Your task to perform on an android device: add a label to a message in the gmail app Image 0: 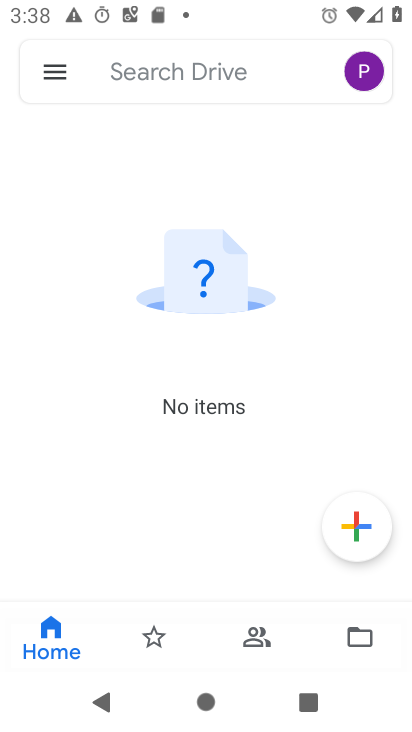
Step 0: press home button
Your task to perform on an android device: add a label to a message in the gmail app Image 1: 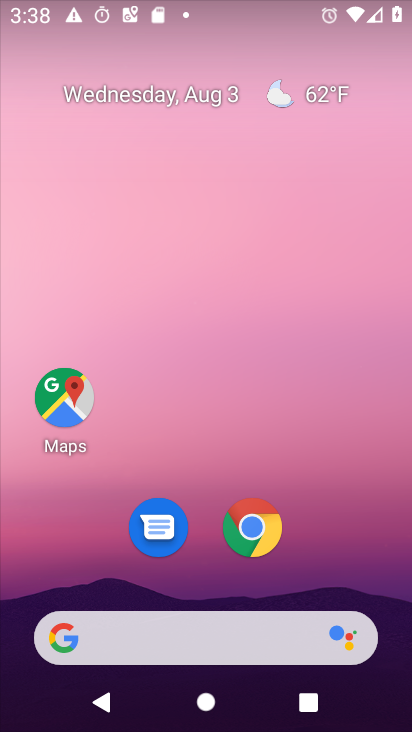
Step 1: drag from (329, 553) to (356, 155)
Your task to perform on an android device: add a label to a message in the gmail app Image 2: 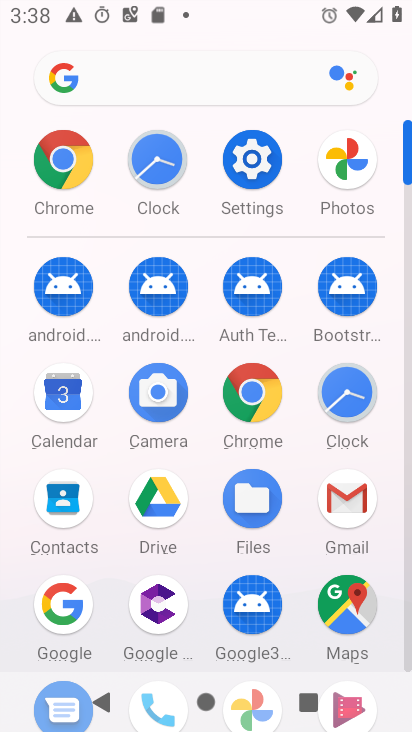
Step 2: click (361, 493)
Your task to perform on an android device: add a label to a message in the gmail app Image 3: 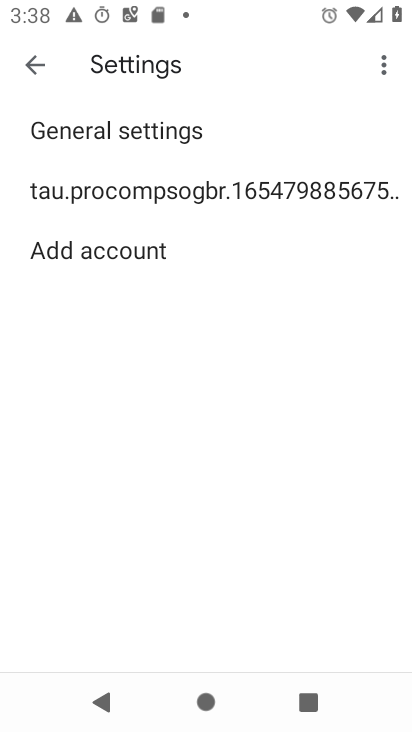
Step 3: click (34, 60)
Your task to perform on an android device: add a label to a message in the gmail app Image 4: 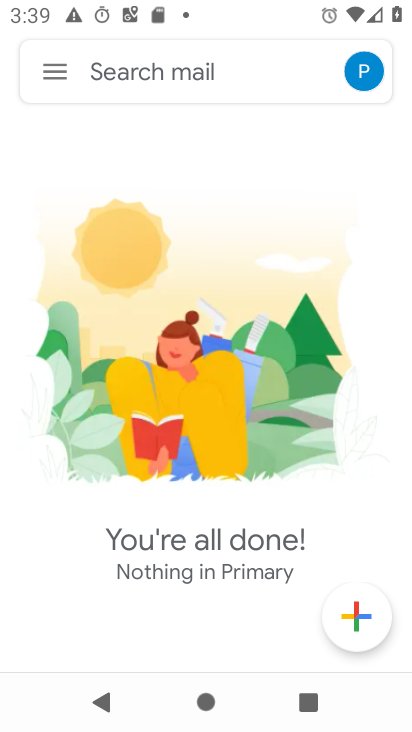
Step 4: click (53, 64)
Your task to perform on an android device: add a label to a message in the gmail app Image 5: 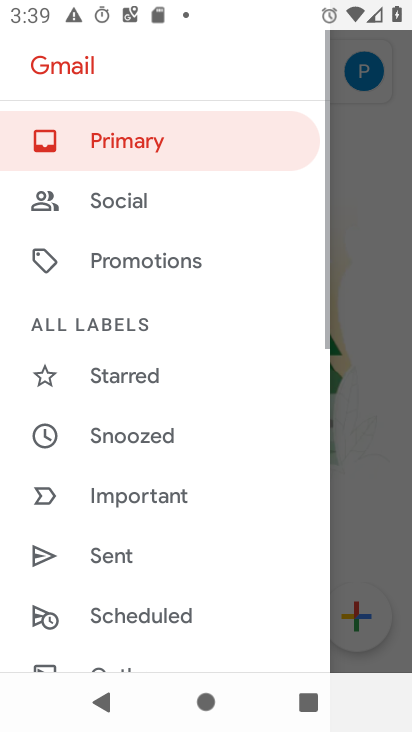
Step 5: drag from (150, 579) to (224, 187)
Your task to perform on an android device: add a label to a message in the gmail app Image 6: 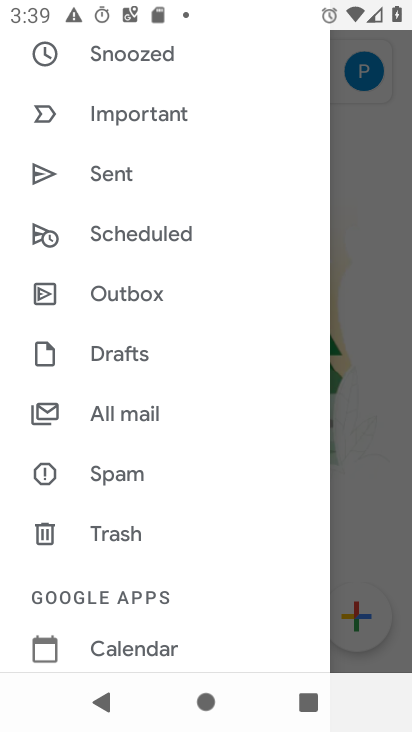
Step 6: click (141, 408)
Your task to perform on an android device: add a label to a message in the gmail app Image 7: 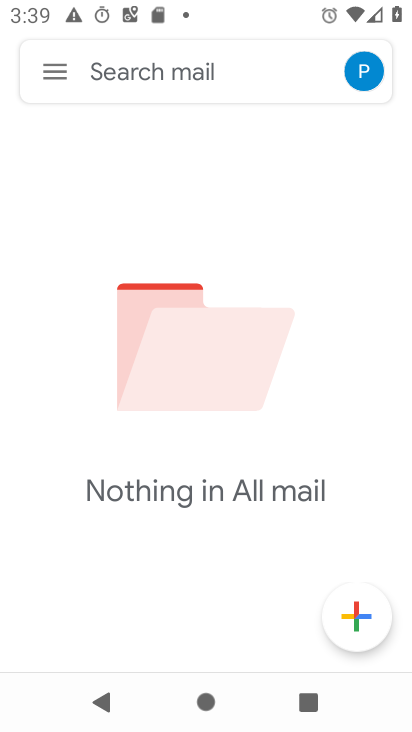
Step 7: task complete